Your task to perform on an android device: open chrome and create a bookmark for the current page Image 0: 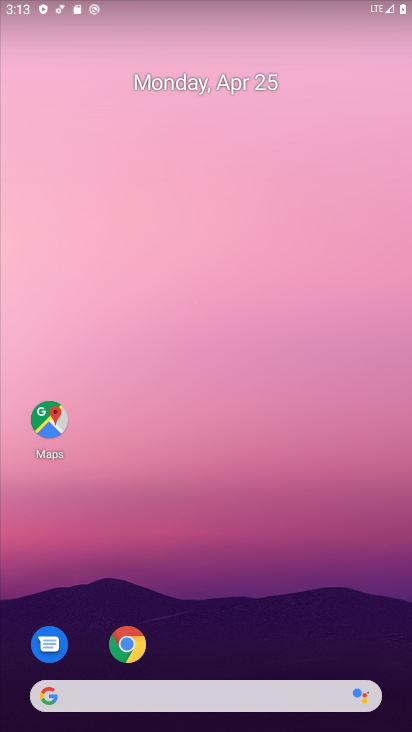
Step 0: drag from (218, 647) to (227, 273)
Your task to perform on an android device: open chrome and create a bookmark for the current page Image 1: 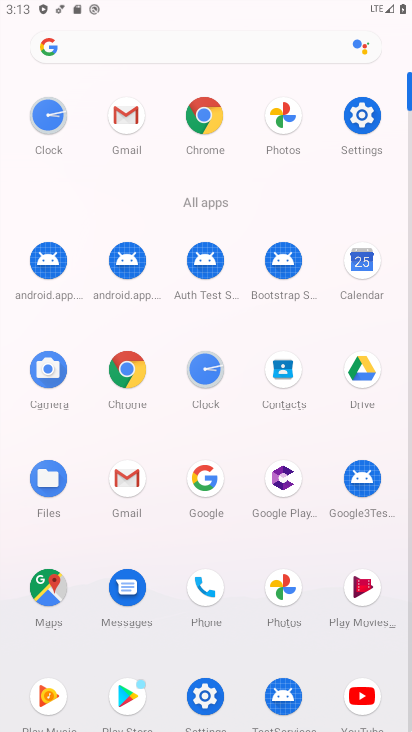
Step 1: click (208, 118)
Your task to perform on an android device: open chrome and create a bookmark for the current page Image 2: 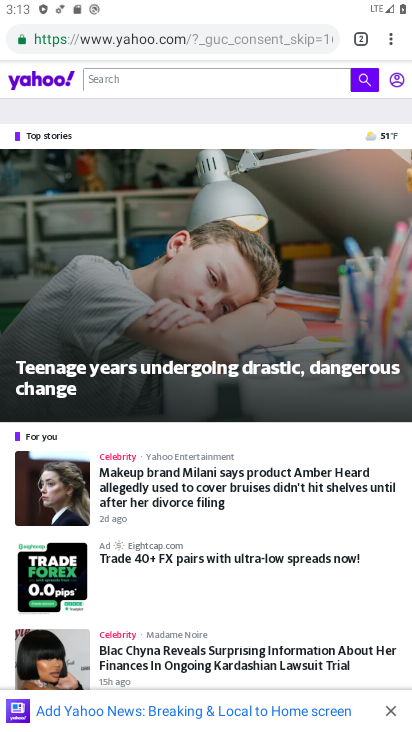
Step 2: task complete